Your task to perform on an android device: Go to location settings Image 0: 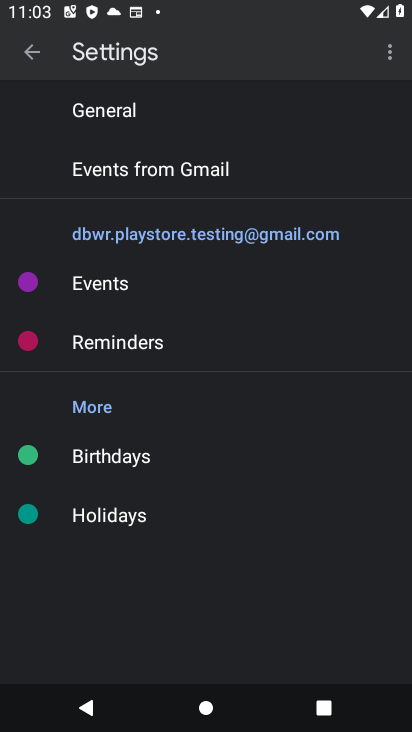
Step 0: task complete